Your task to perform on an android device: Open battery settings Image 0: 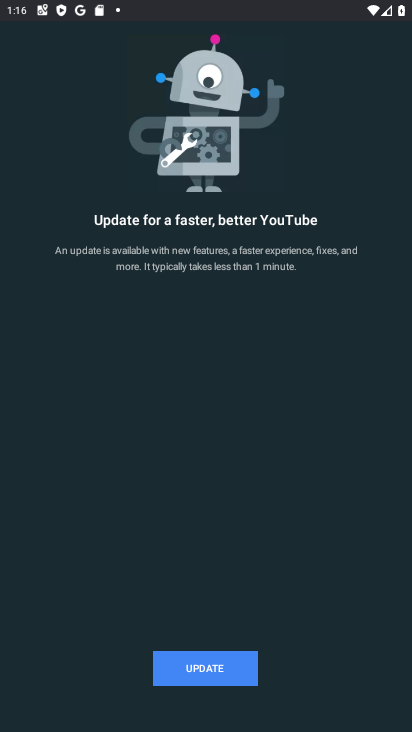
Step 0: press home button
Your task to perform on an android device: Open battery settings Image 1: 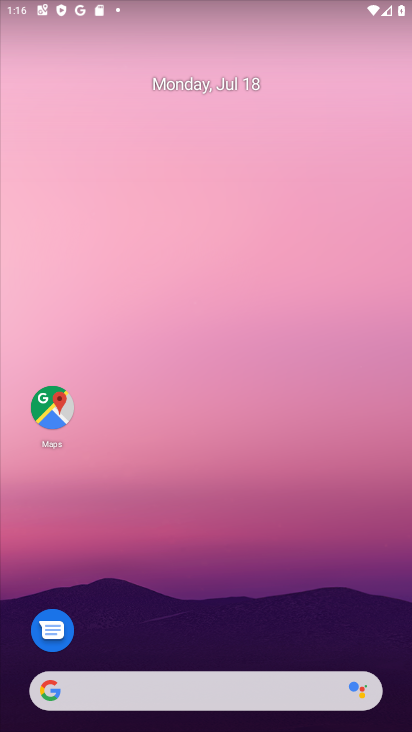
Step 1: drag from (261, 680) to (304, 8)
Your task to perform on an android device: Open battery settings Image 2: 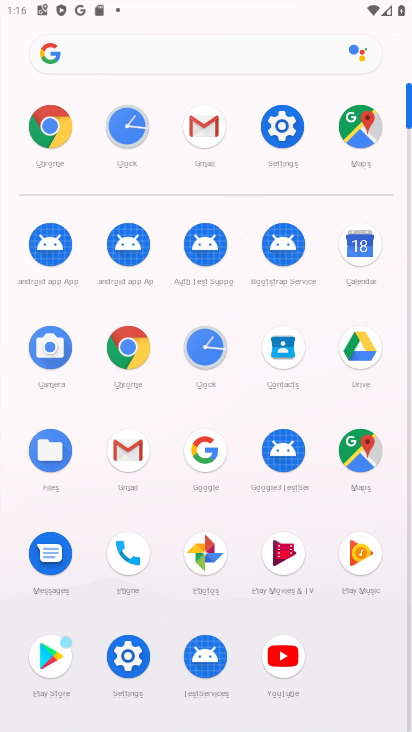
Step 2: click (292, 113)
Your task to perform on an android device: Open battery settings Image 3: 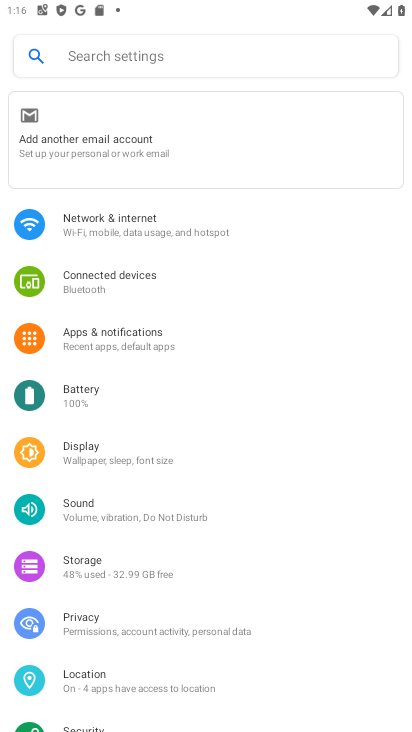
Step 3: click (114, 410)
Your task to perform on an android device: Open battery settings Image 4: 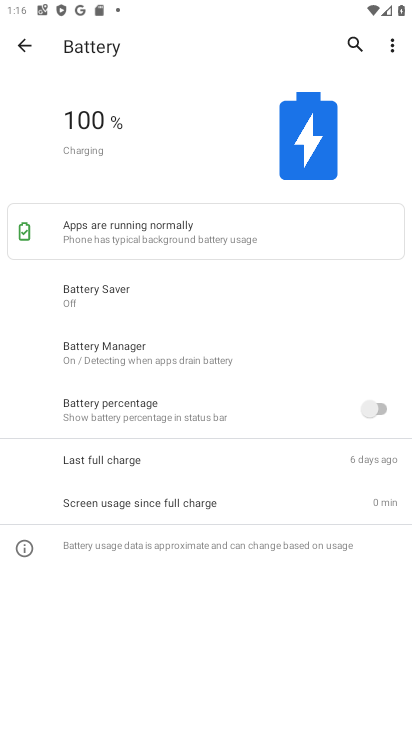
Step 4: task complete